Your task to perform on an android device: Open calendar and show me the first week of next month Image 0: 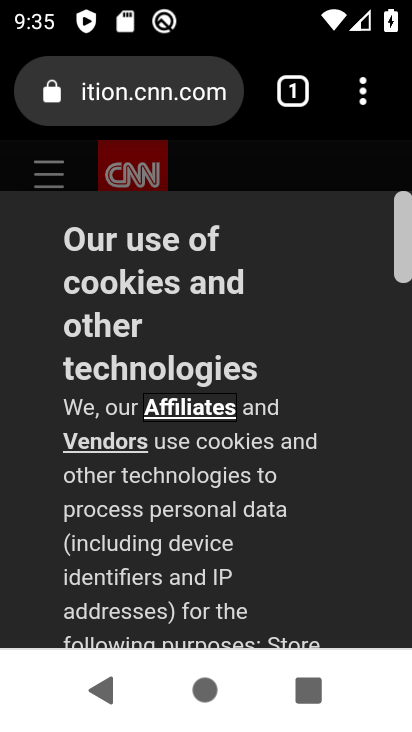
Step 0: press home button
Your task to perform on an android device: Open calendar and show me the first week of next month Image 1: 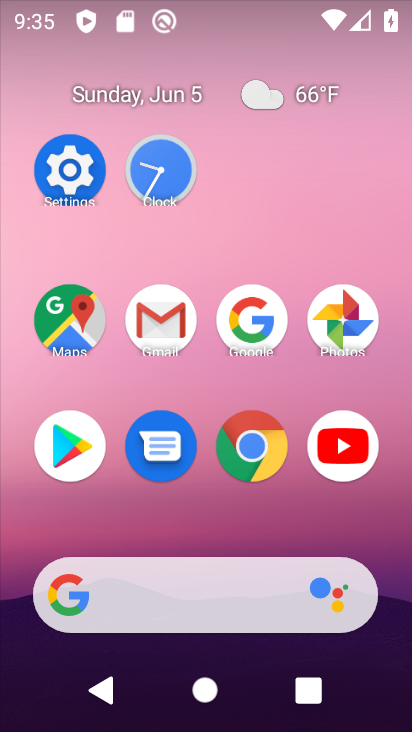
Step 1: drag from (215, 517) to (214, 198)
Your task to perform on an android device: Open calendar and show me the first week of next month Image 2: 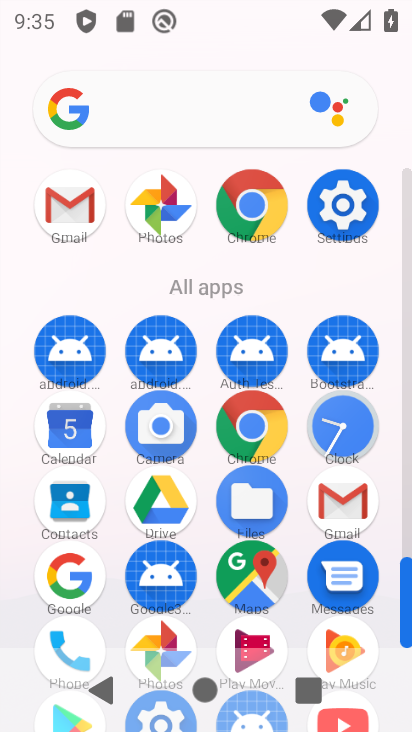
Step 2: drag from (266, 521) to (238, 242)
Your task to perform on an android device: Open calendar and show me the first week of next month Image 3: 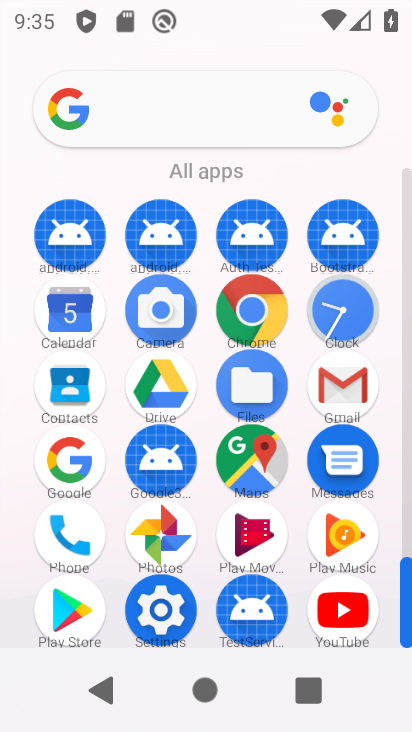
Step 3: drag from (79, 315) to (229, 187)
Your task to perform on an android device: Open calendar and show me the first week of next month Image 4: 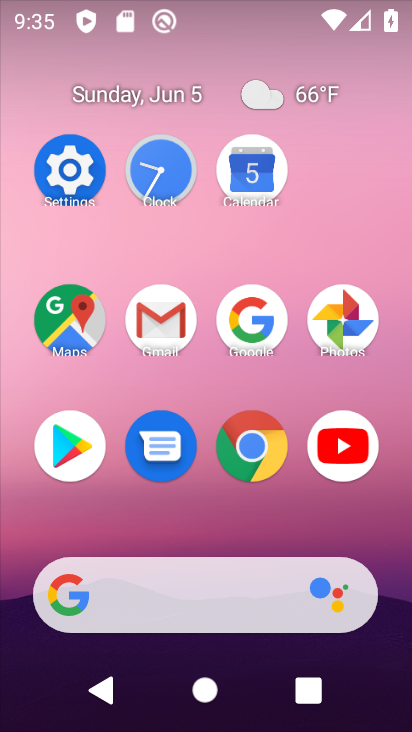
Step 4: click (229, 186)
Your task to perform on an android device: Open calendar and show me the first week of next month Image 5: 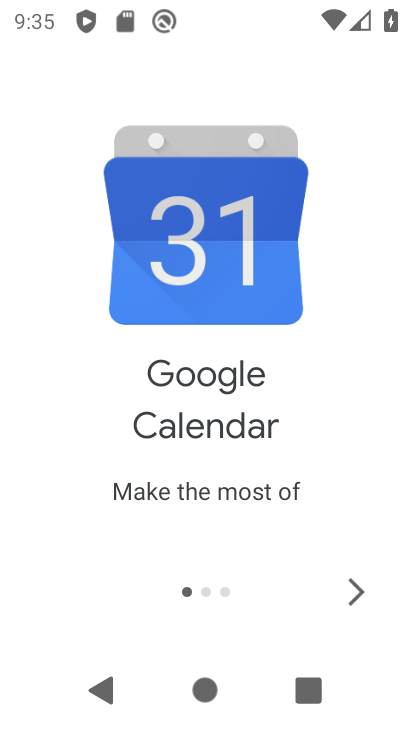
Step 5: click (352, 589)
Your task to perform on an android device: Open calendar and show me the first week of next month Image 6: 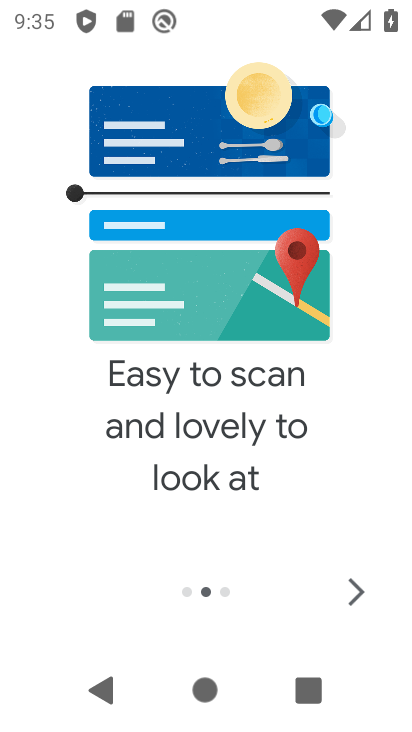
Step 6: click (343, 581)
Your task to perform on an android device: Open calendar and show me the first week of next month Image 7: 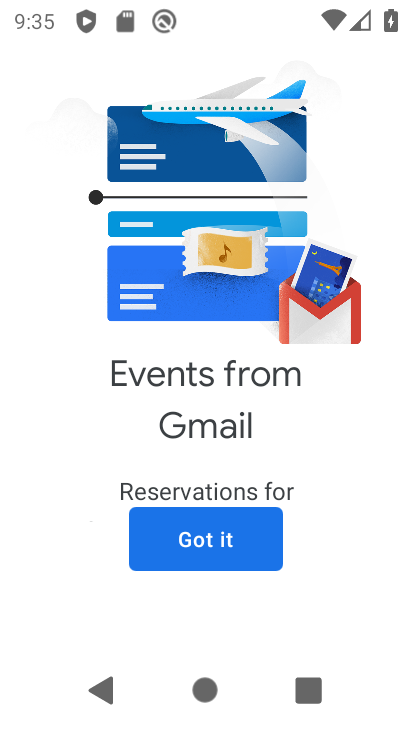
Step 7: click (343, 581)
Your task to perform on an android device: Open calendar and show me the first week of next month Image 8: 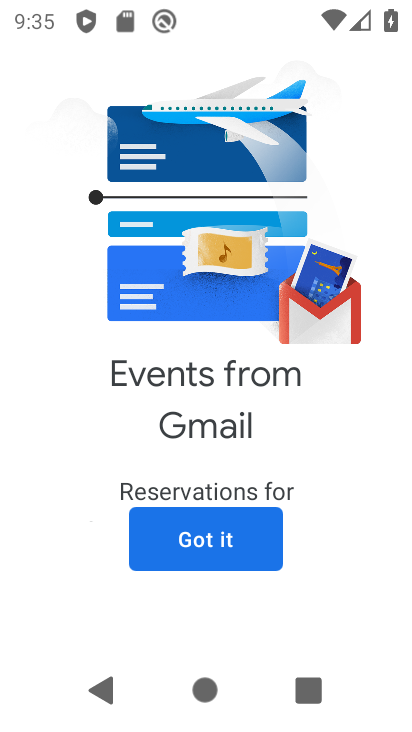
Step 8: click (271, 535)
Your task to perform on an android device: Open calendar and show me the first week of next month Image 9: 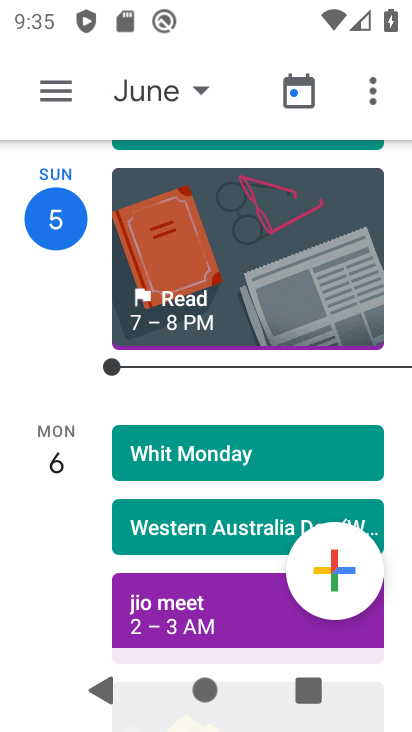
Step 9: click (136, 100)
Your task to perform on an android device: Open calendar and show me the first week of next month Image 10: 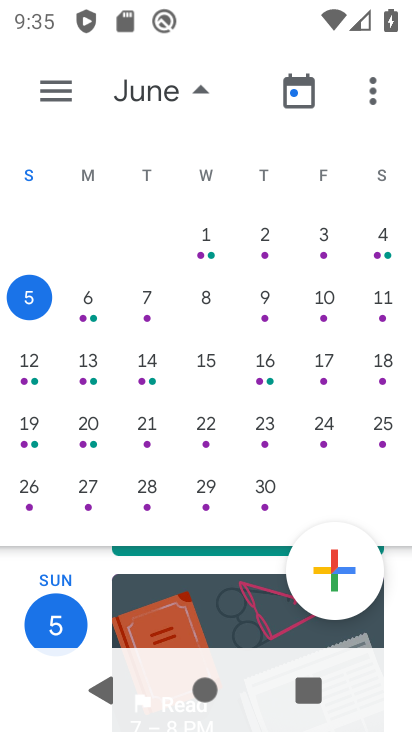
Step 10: drag from (386, 376) to (1, 60)
Your task to perform on an android device: Open calendar and show me the first week of next month Image 11: 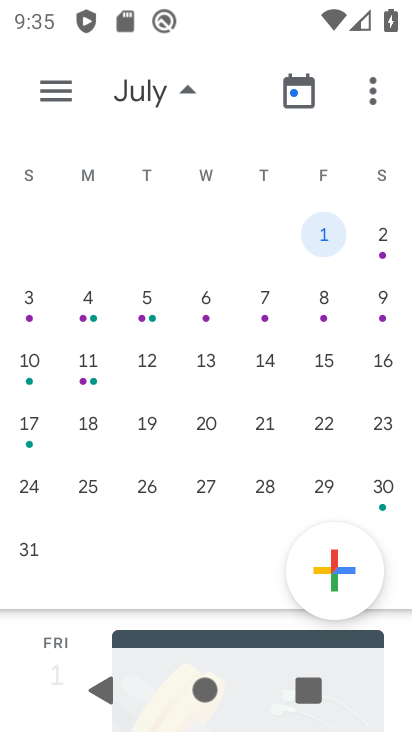
Step 11: click (65, 92)
Your task to perform on an android device: Open calendar and show me the first week of next month Image 12: 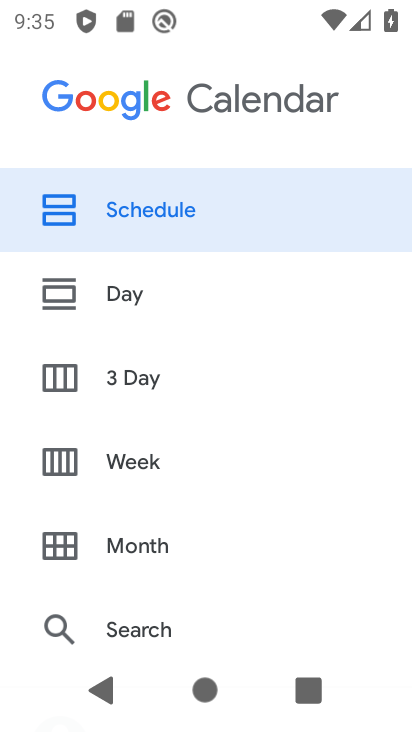
Step 12: click (190, 461)
Your task to perform on an android device: Open calendar and show me the first week of next month Image 13: 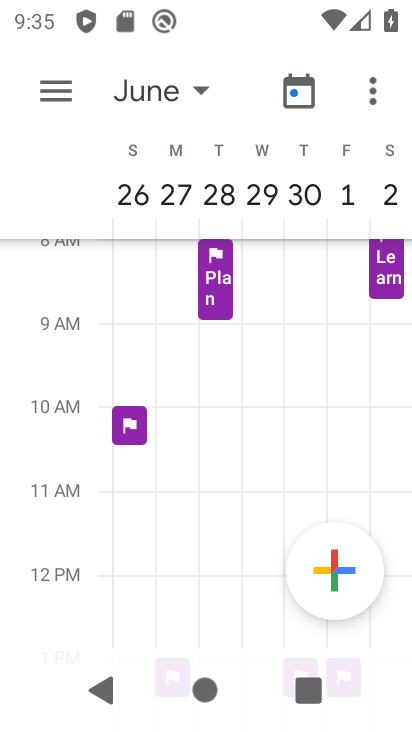
Step 13: task complete